Your task to perform on an android device: Go to settings Image 0: 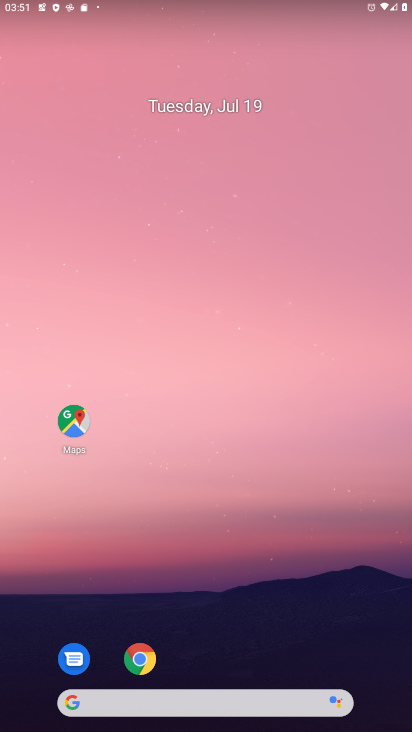
Step 0: press home button
Your task to perform on an android device: Go to settings Image 1: 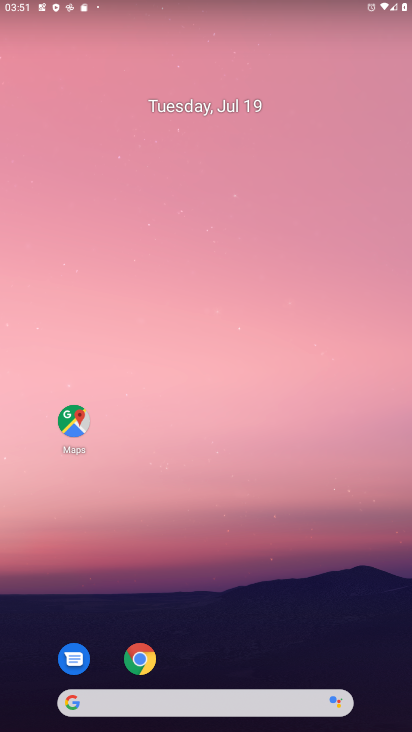
Step 1: drag from (219, 623) to (214, 148)
Your task to perform on an android device: Go to settings Image 2: 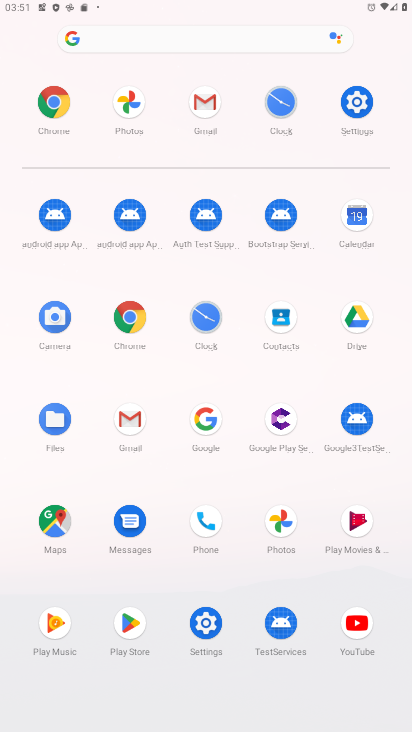
Step 2: click (362, 122)
Your task to perform on an android device: Go to settings Image 3: 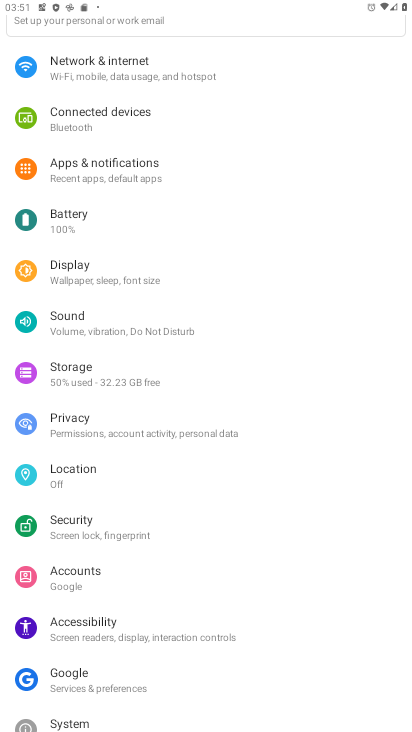
Step 3: task complete